Your task to perform on an android device: Do I have any events tomorrow? Image 0: 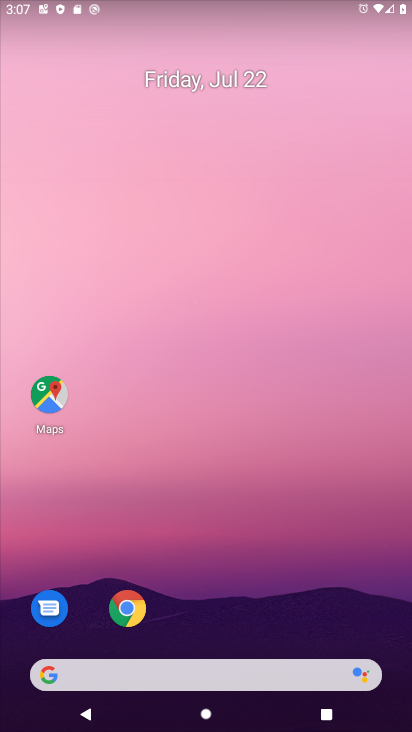
Step 0: drag from (273, 612) to (213, 179)
Your task to perform on an android device: Do I have any events tomorrow? Image 1: 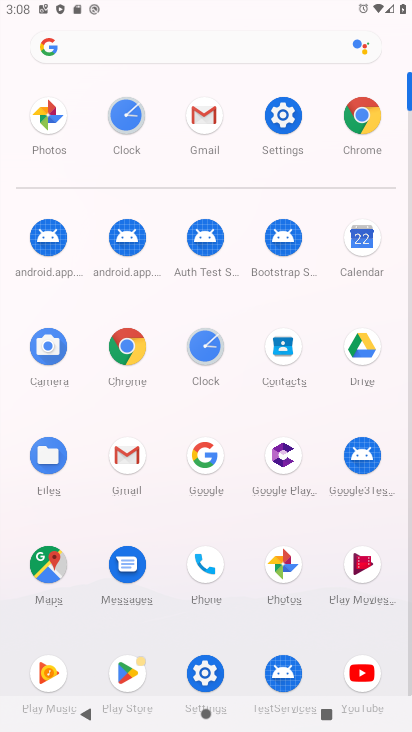
Step 1: click (349, 238)
Your task to perform on an android device: Do I have any events tomorrow? Image 2: 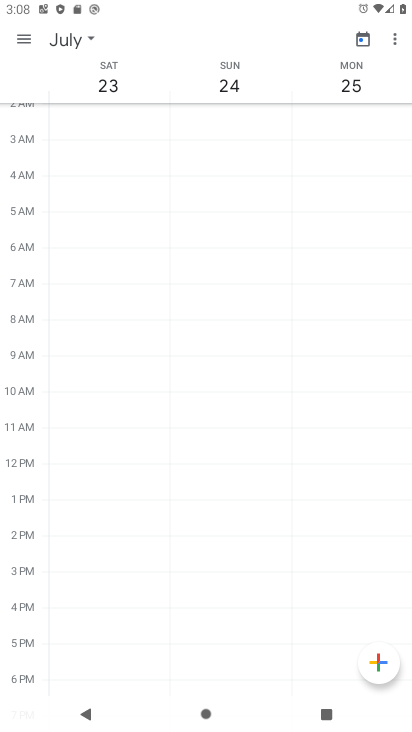
Step 2: click (21, 42)
Your task to perform on an android device: Do I have any events tomorrow? Image 3: 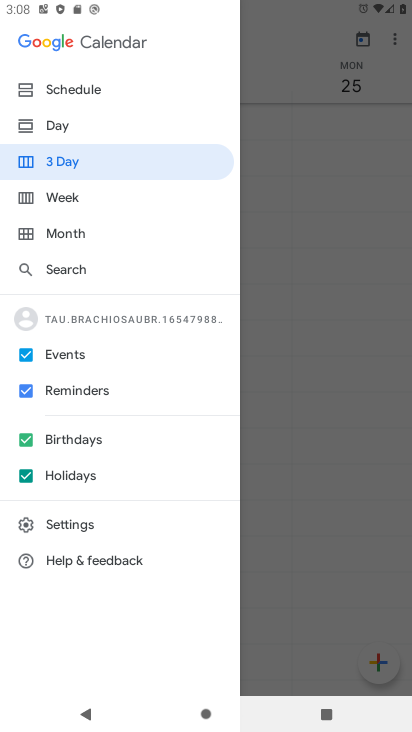
Step 3: click (57, 127)
Your task to perform on an android device: Do I have any events tomorrow? Image 4: 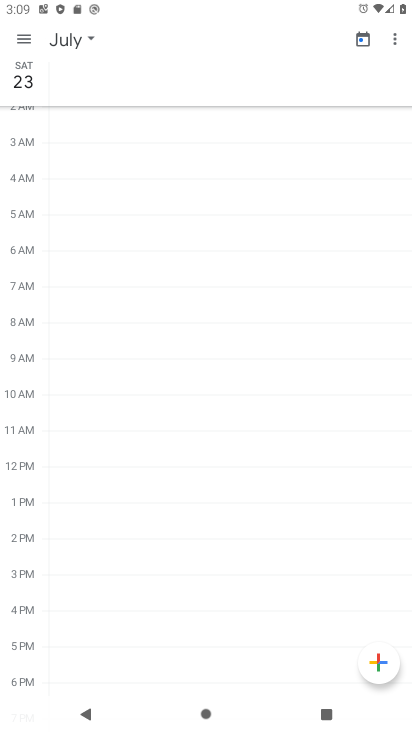
Step 4: click (74, 42)
Your task to perform on an android device: Do I have any events tomorrow? Image 5: 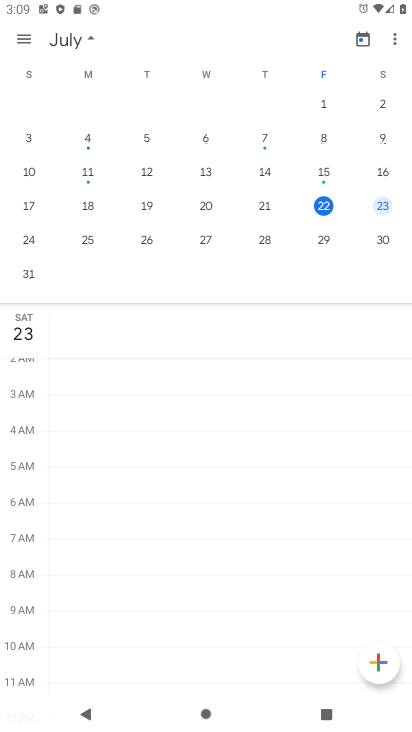
Step 5: task complete